Your task to perform on an android device: check battery use Image 0: 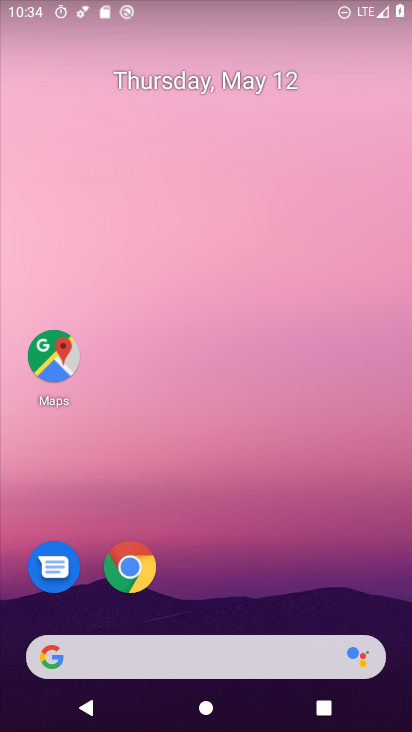
Step 0: drag from (260, 497) to (265, 5)
Your task to perform on an android device: check battery use Image 1: 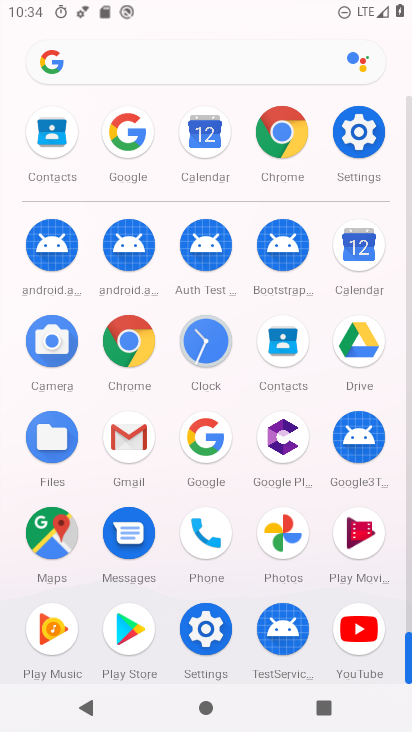
Step 1: click (351, 156)
Your task to perform on an android device: check battery use Image 2: 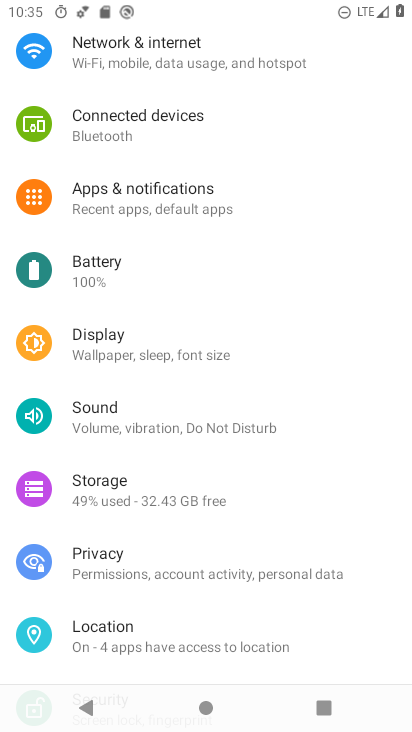
Step 2: click (150, 280)
Your task to perform on an android device: check battery use Image 3: 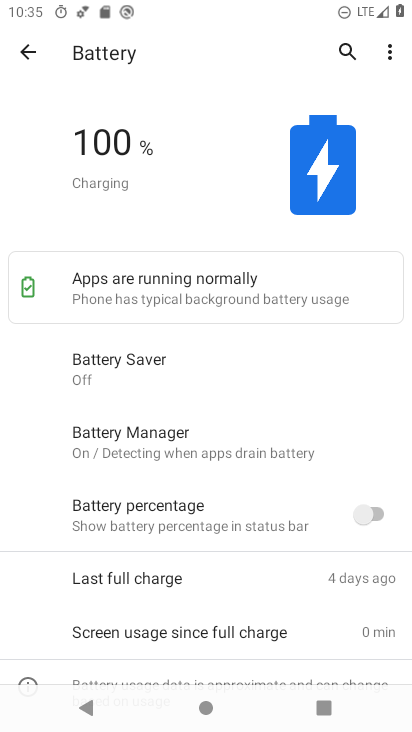
Step 3: task complete